Your task to perform on an android device: toggle javascript in the chrome app Image 0: 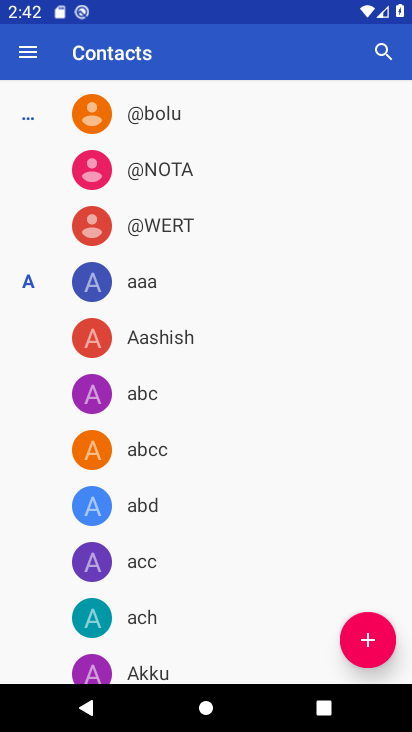
Step 0: press home button
Your task to perform on an android device: toggle javascript in the chrome app Image 1: 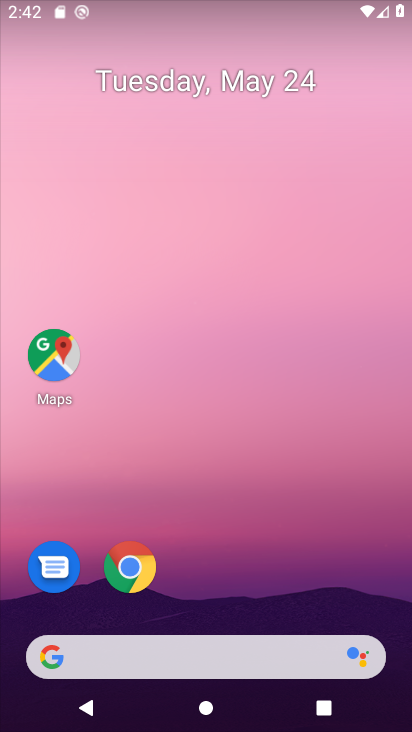
Step 1: click (133, 587)
Your task to perform on an android device: toggle javascript in the chrome app Image 2: 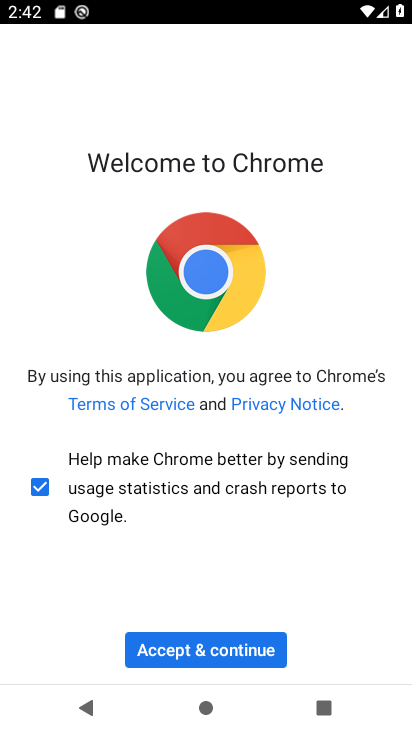
Step 2: click (236, 660)
Your task to perform on an android device: toggle javascript in the chrome app Image 3: 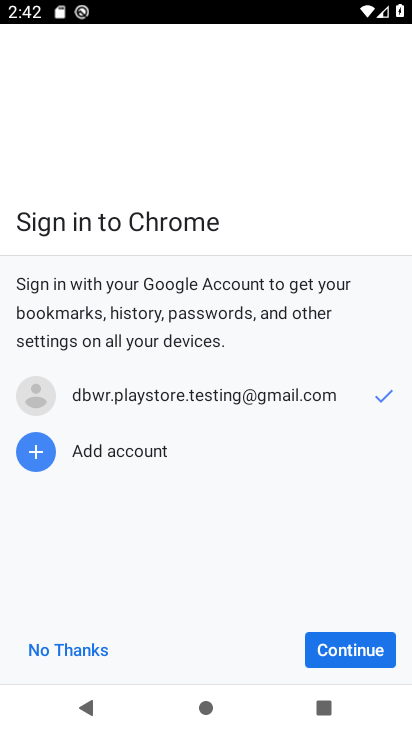
Step 3: click (385, 635)
Your task to perform on an android device: toggle javascript in the chrome app Image 4: 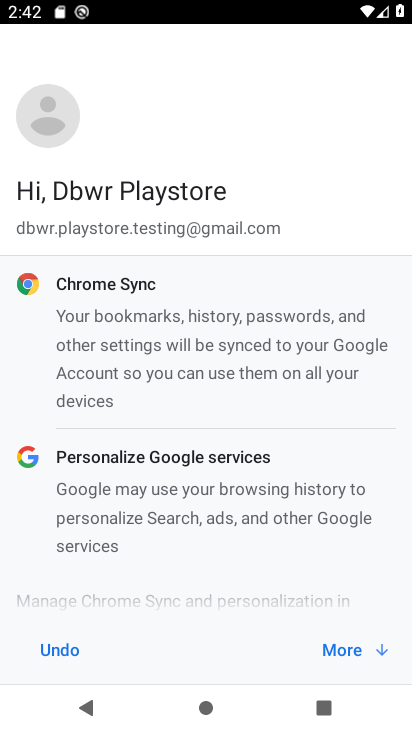
Step 4: click (361, 648)
Your task to perform on an android device: toggle javascript in the chrome app Image 5: 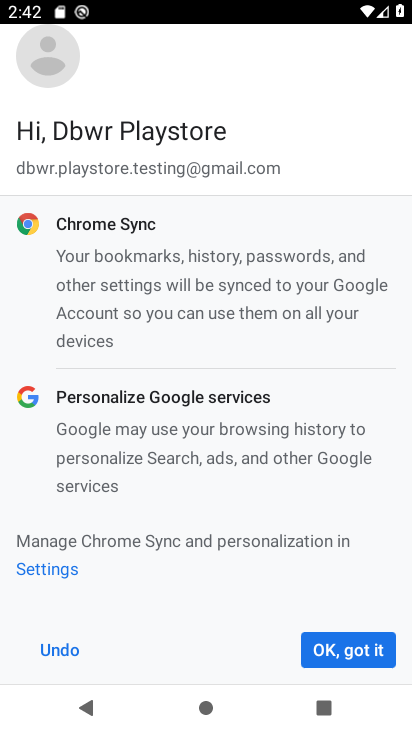
Step 5: click (360, 649)
Your task to perform on an android device: toggle javascript in the chrome app Image 6: 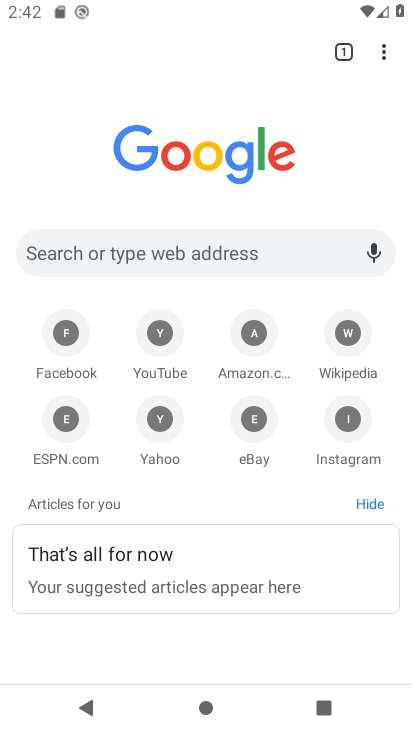
Step 6: drag from (385, 54) to (302, 450)
Your task to perform on an android device: toggle javascript in the chrome app Image 7: 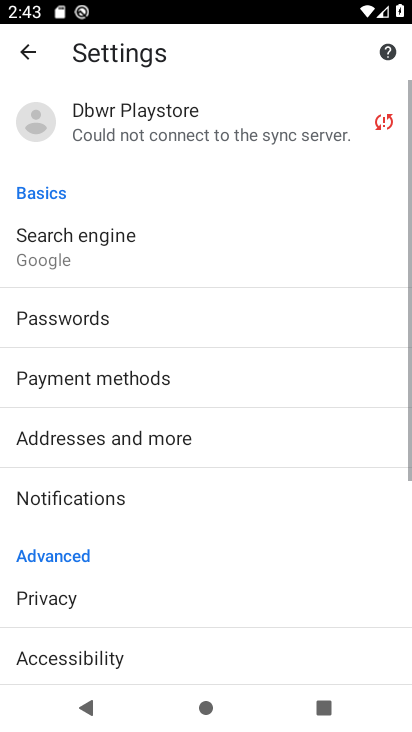
Step 7: drag from (183, 630) to (262, 242)
Your task to perform on an android device: toggle javascript in the chrome app Image 8: 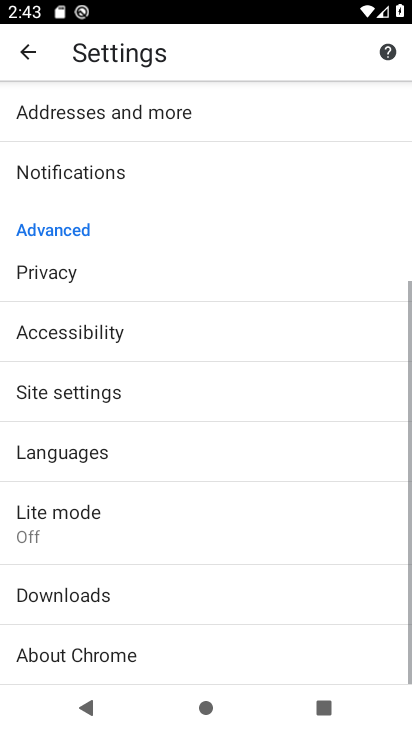
Step 8: click (115, 381)
Your task to perform on an android device: toggle javascript in the chrome app Image 9: 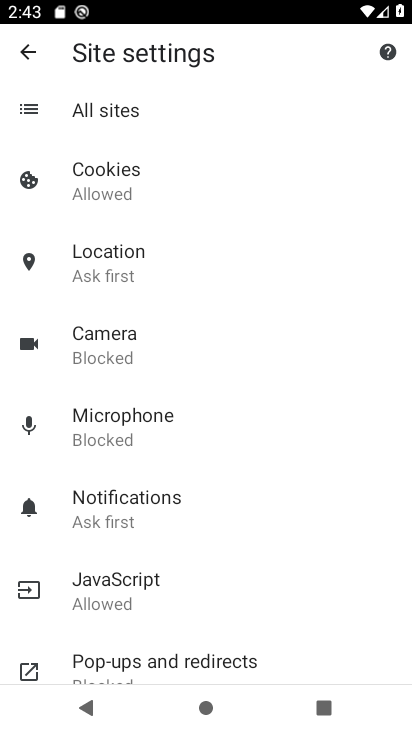
Step 9: click (193, 598)
Your task to perform on an android device: toggle javascript in the chrome app Image 10: 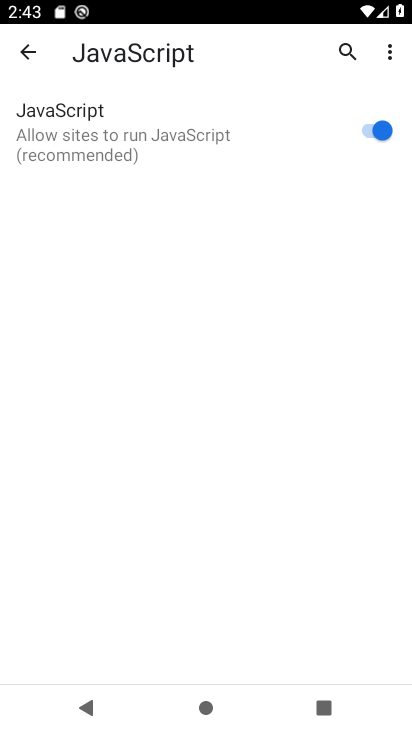
Step 10: click (367, 122)
Your task to perform on an android device: toggle javascript in the chrome app Image 11: 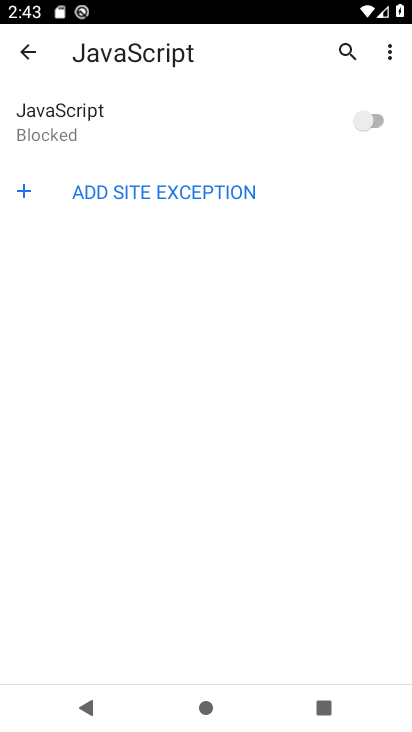
Step 11: task complete